Your task to perform on an android device: toggle improve location accuracy Image 0: 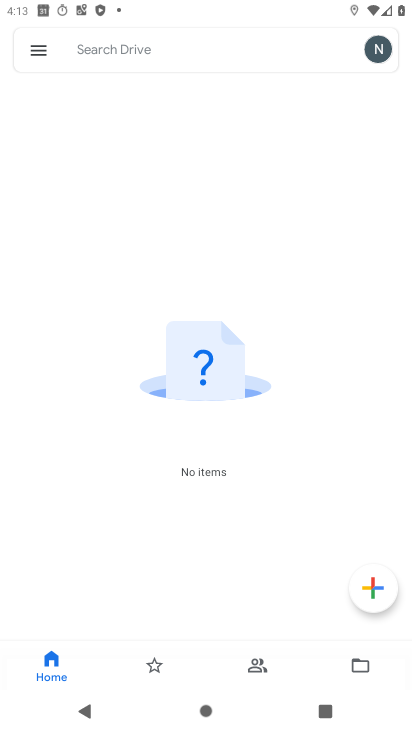
Step 0: press home button
Your task to perform on an android device: toggle improve location accuracy Image 1: 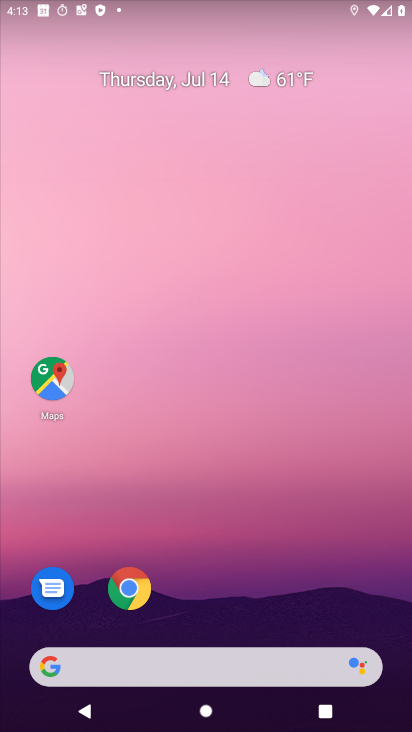
Step 1: drag from (207, 673) to (207, 195)
Your task to perform on an android device: toggle improve location accuracy Image 2: 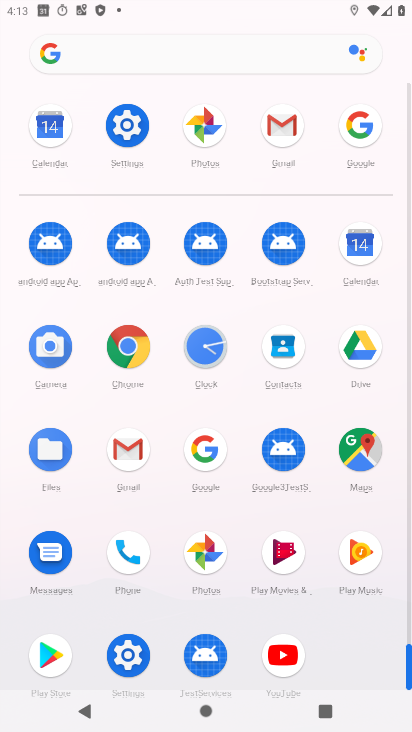
Step 2: click (126, 125)
Your task to perform on an android device: toggle improve location accuracy Image 3: 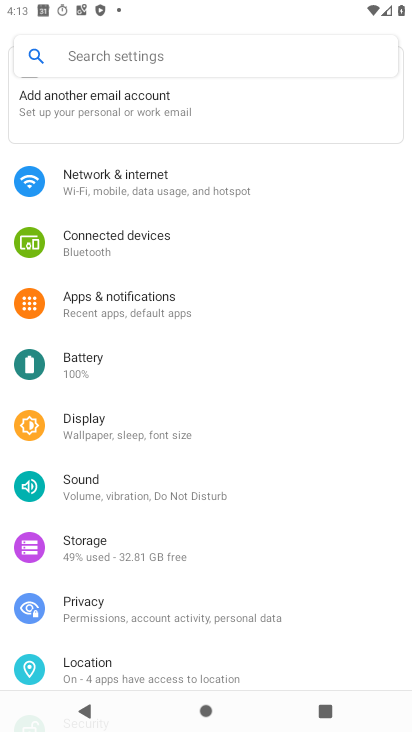
Step 3: click (85, 664)
Your task to perform on an android device: toggle improve location accuracy Image 4: 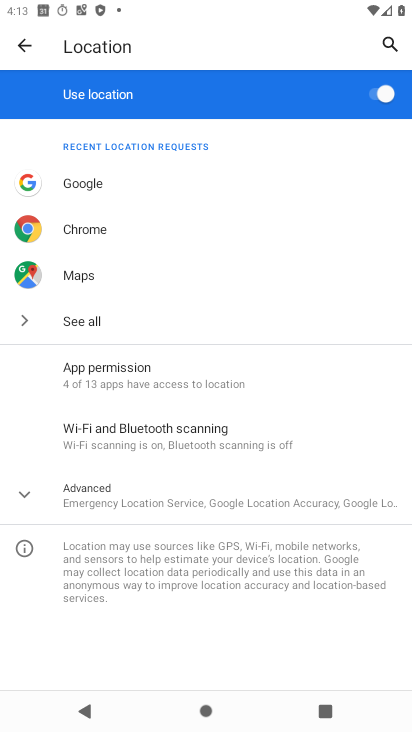
Step 4: click (137, 503)
Your task to perform on an android device: toggle improve location accuracy Image 5: 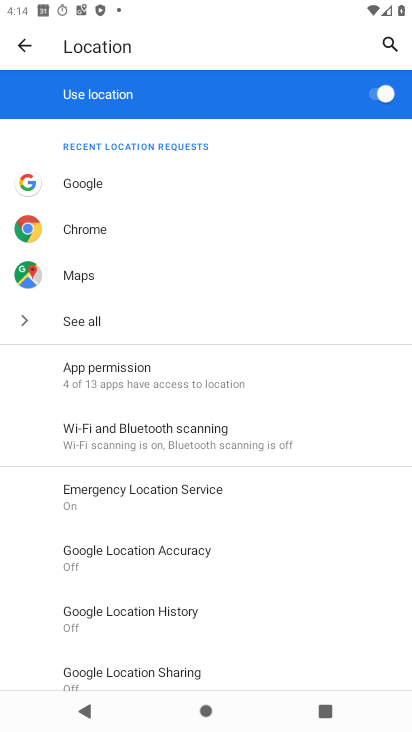
Step 5: click (144, 555)
Your task to perform on an android device: toggle improve location accuracy Image 6: 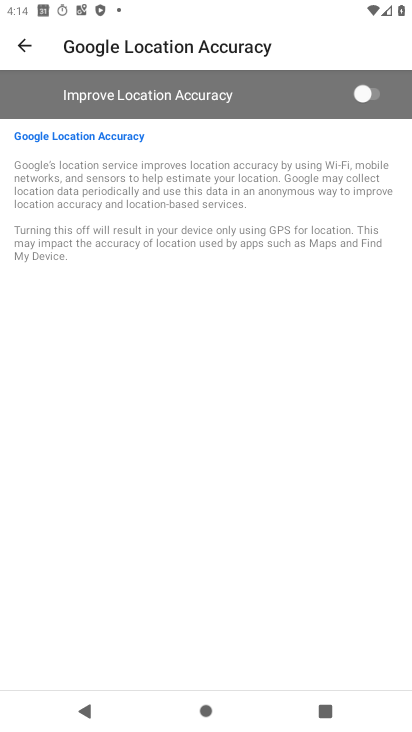
Step 6: click (363, 94)
Your task to perform on an android device: toggle improve location accuracy Image 7: 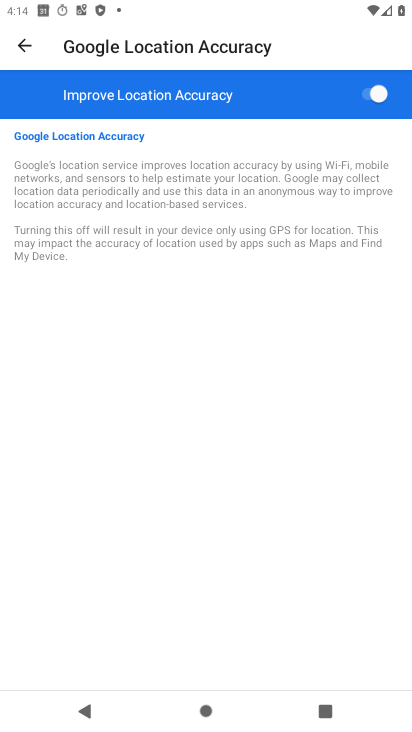
Step 7: task complete